Your task to perform on an android device: read, delete, or share a saved page in the chrome app Image 0: 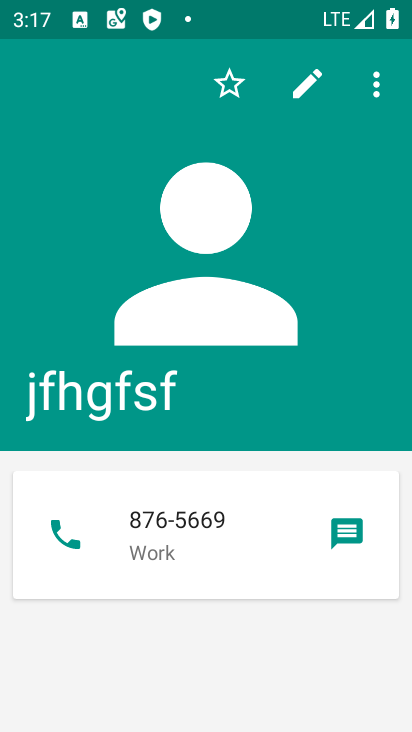
Step 0: press home button
Your task to perform on an android device: read, delete, or share a saved page in the chrome app Image 1: 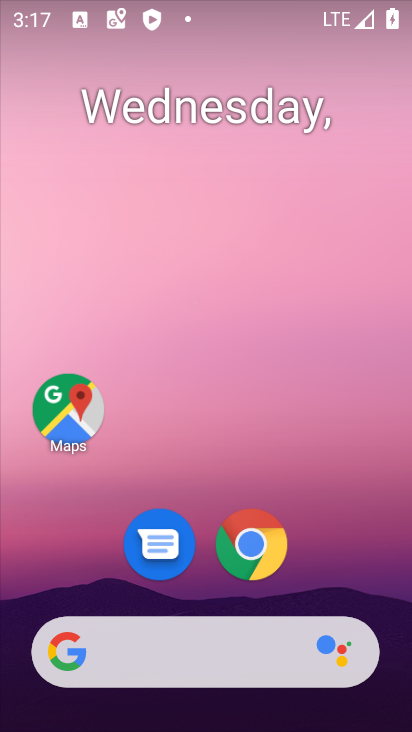
Step 1: click (253, 542)
Your task to perform on an android device: read, delete, or share a saved page in the chrome app Image 2: 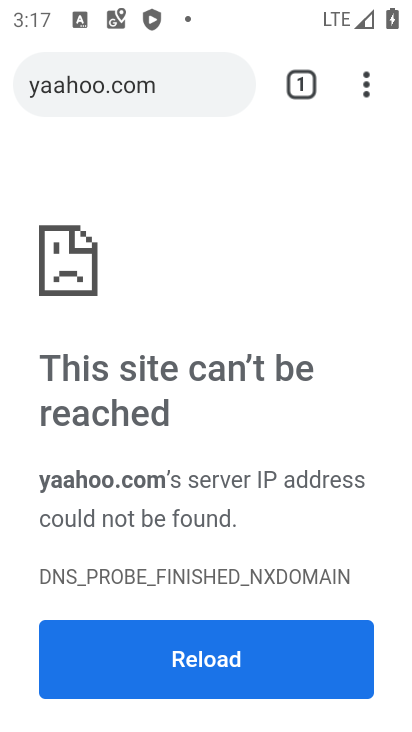
Step 2: click (368, 95)
Your task to perform on an android device: read, delete, or share a saved page in the chrome app Image 3: 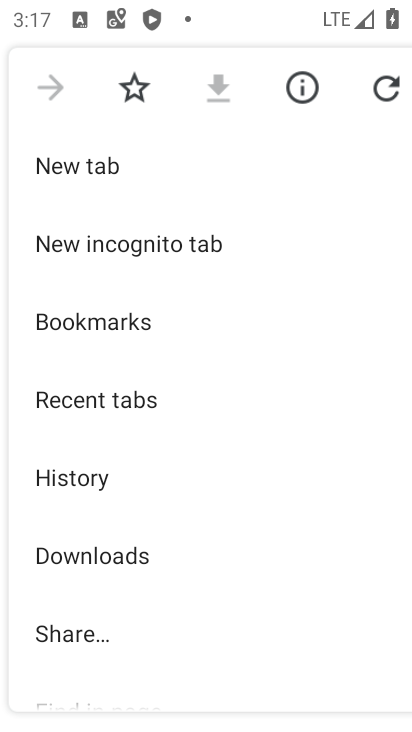
Step 3: click (96, 561)
Your task to perform on an android device: read, delete, or share a saved page in the chrome app Image 4: 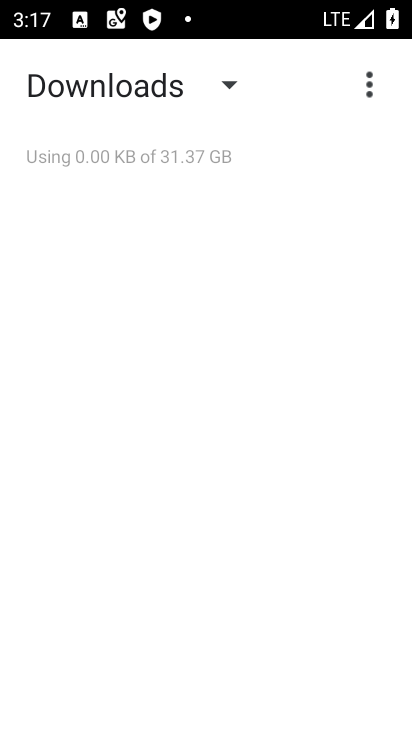
Step 4: click (227, 82)
Your task to perform on an android device: read, delete, or share a saved page in the chrome app Image 5: 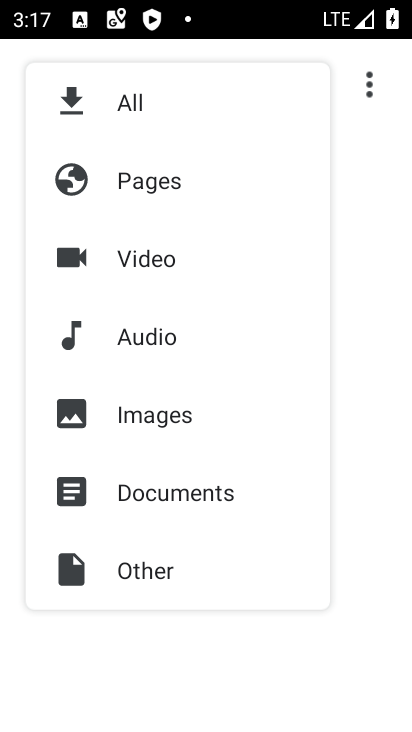
Step 5: click (140, 189)
Your task to perform on an android device: read, delete, or share a saved page in the chrome app Image 6: 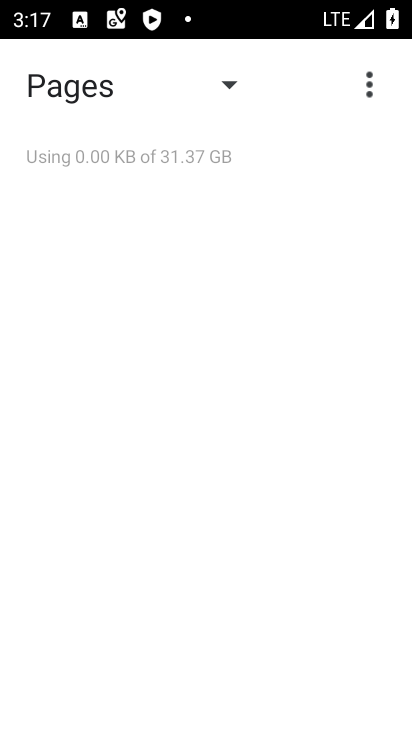
Step 6: task complete